Your task to perform on an android device: Go to Yahoo.com Image 0: 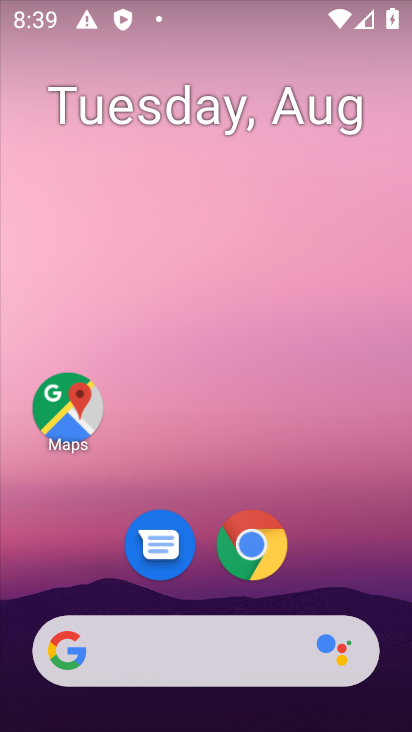
Step 0: click (259, 542)
Your task to perform on an android device: Go to Yahoo.com Image 1: 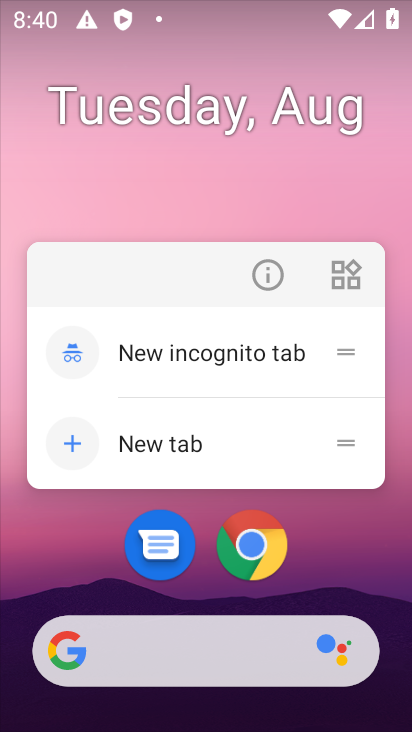
Step 1: click (259, 542)
Your task to perform on an android device: Go to Yahoo.com Image 2: 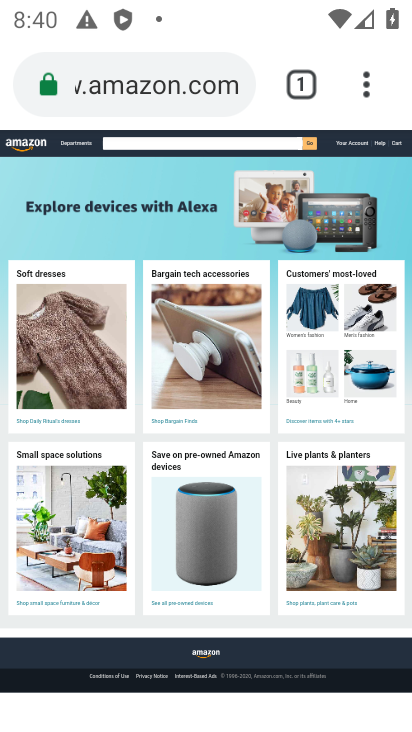
Step 2: click (310, 89)
Your task to perform on an android device: Go to Yahoo.com Image 3: 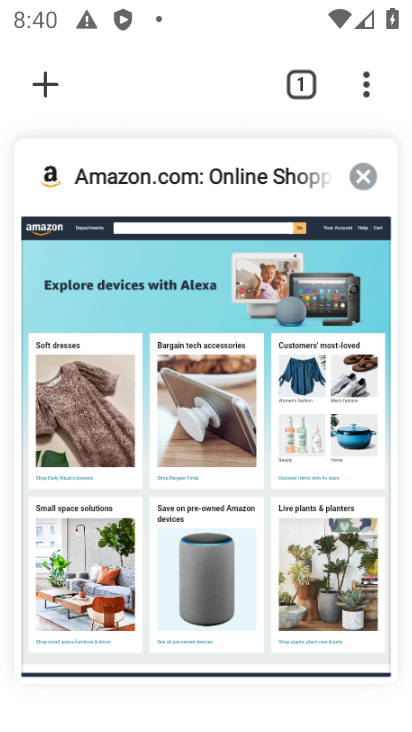
Step 3: click (367, 167)
Your task to perform on an android device: Go to Yahoo.com Image 4: 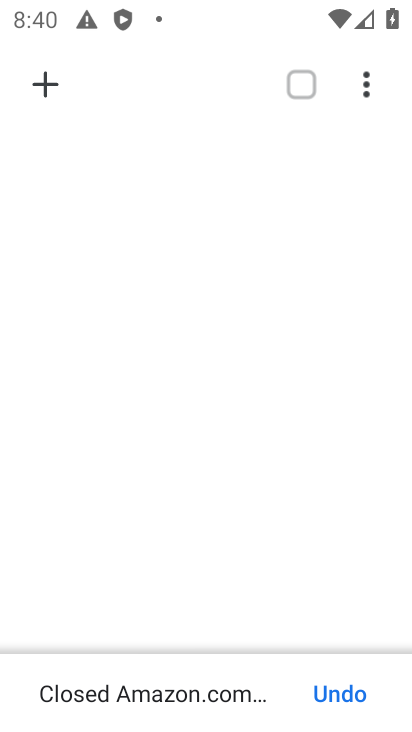
Step 4: click (51, 87)
Your task to perform on an android device: Go to Yahoo.com Image 5: 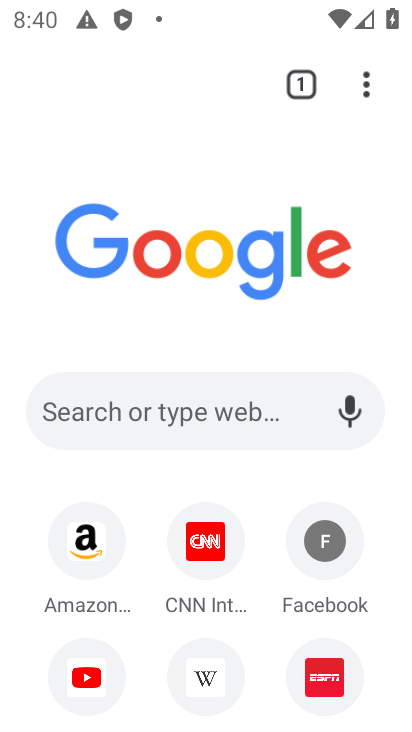
Step 5: drag from (1, 600) to (139, 151)
Your task to perform on an android device: Go to Yahoo.com Image 6: 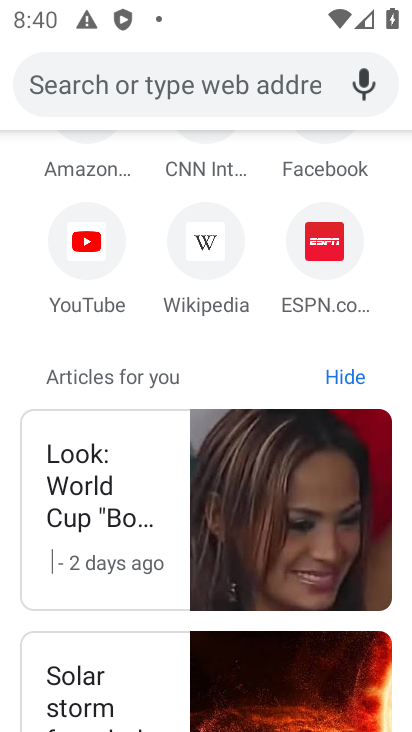
Step 6: drag from (354, 185) to (363, 583)
Your task to perform on an android device: Go to Yahoo.com Image 7: 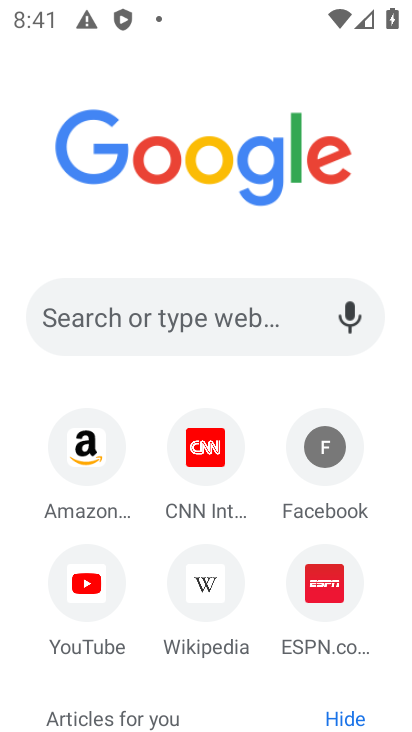
Step 7: click (205, 298)
Your task to perform on an android device: Go to Yahoo.com Image 8: 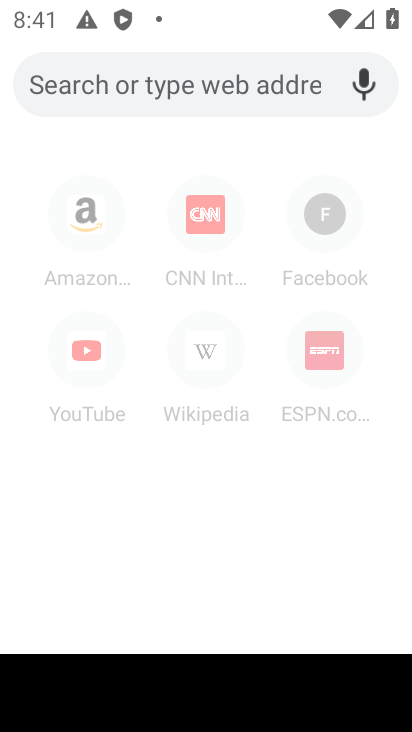
Step 8: type "Yahoo.com"
Your task to perform on an android device: Go to Yahoo.com Image 9: 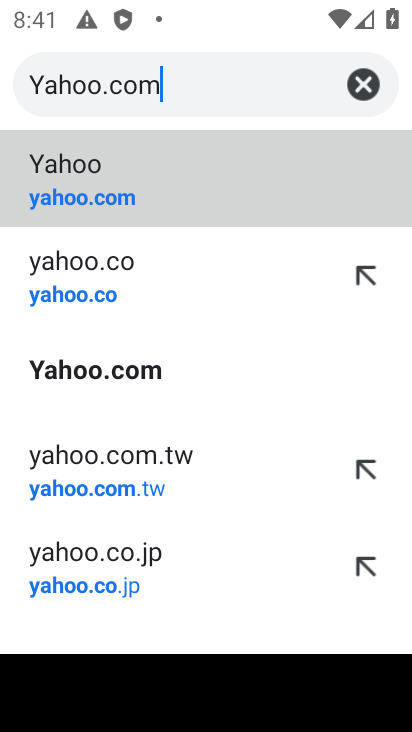
Step 9: type ""
Your task to perform on an android device: Go to Yahoo.com Image 10: 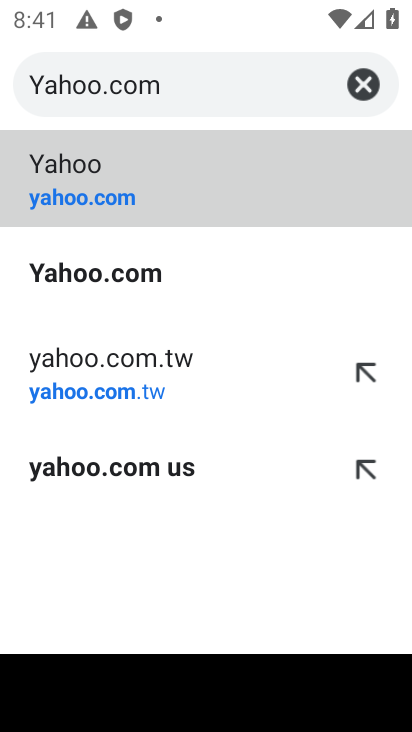
Step 10: click (61, 158)
Your task to perform on an android device: Go to Yahoo.com Image 11: 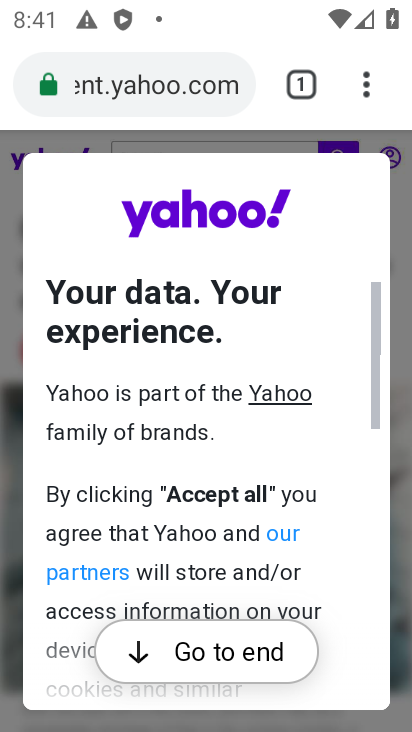
Step 11: drag from (56, 660) to (217, 177)
Your task to perform on an android device: Go to Yahoo.com Image 12: 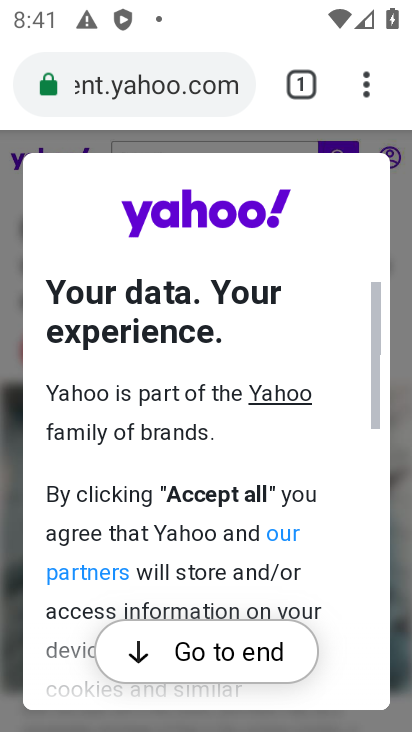
Step 12: click (192, 644)
Your task to perform on an android device: Go to Yahoo.com Image 13: 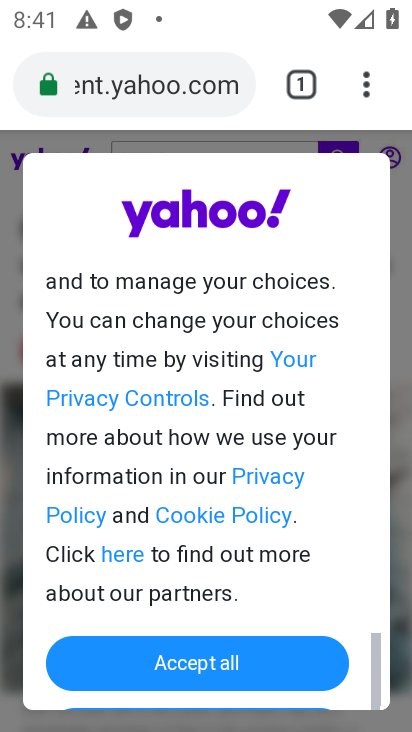
Step 13: click (259, 656)
Your task to perform on an android device: Go to Yahoo.com Image 14: 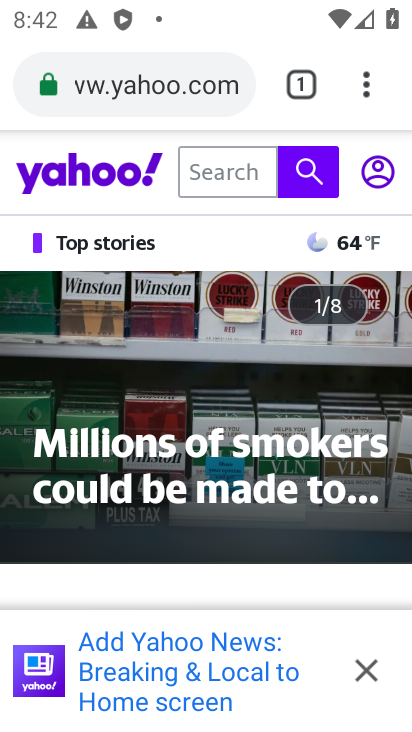
Step 14: task complete